Your task to perform on an android device: View the shopping cart on amazon. Add corsair k70 to the cart on amazon, then select checkout. Image 0: 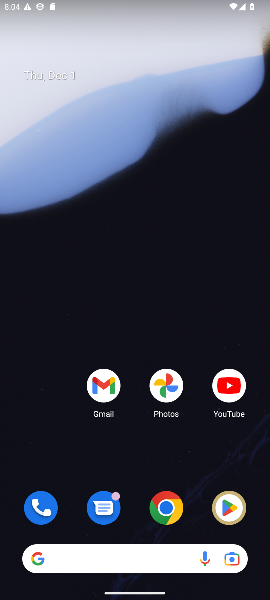
Step 0: click (165, 518)
Your task to perform on an android device: View the shopping cart on amazon. Add corsair k70 to the cart on amazon, then select checkout. Image 1: 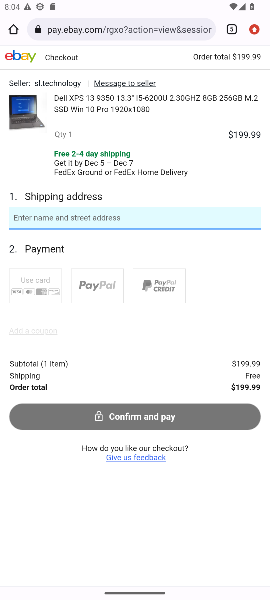
Step 1: click (231, 31)
Your task to perform on an android device: View the shopping cart on amazon. Add corsair k70 to the cart on amazon, then select checkout. Image 2: 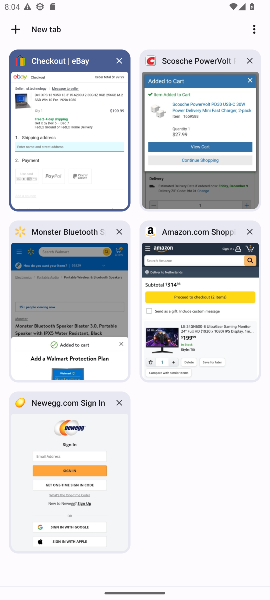
Step 2: click (210, 267)
Your task to perform on an android device: View the shopping cart on amazon. Add corsair k70 to the cart on amazon, then select checkout. Image 3: 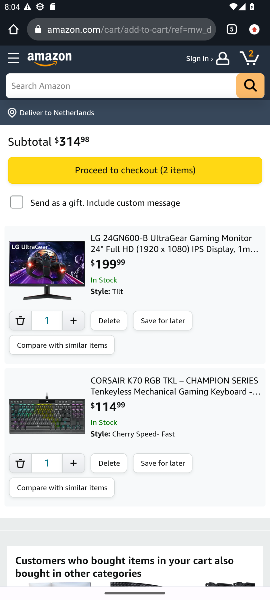
Step 3: click (247, 63)
Your task to perform on an android device: View the shopping cart on amazon. Add corsair k70 to the cart on amazon, then select checkout. Image 4: 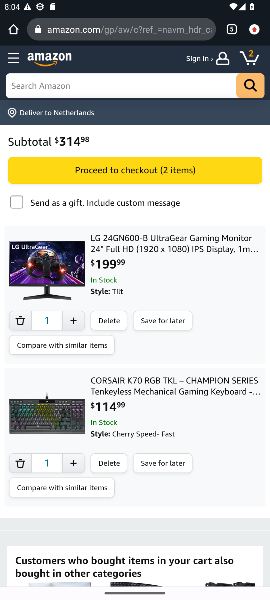
Step 4: click (82, 88)
Your task to perform on an android device: View the shopping cart on amazon. Add corsair k70 to the cart on amazon, then select checkout. Image 5: 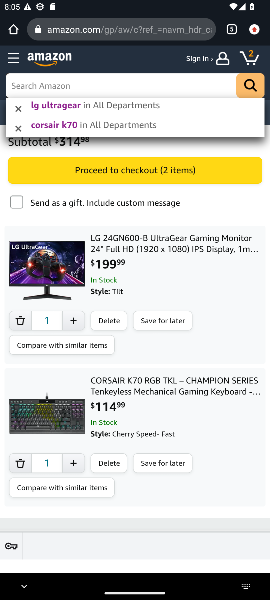
Step 5: click (50, 125)
Your task to perform on an android device: View the shopping cart on amazon. Add corsair k70 to the cart on amazon, then select checkout. Image 6: 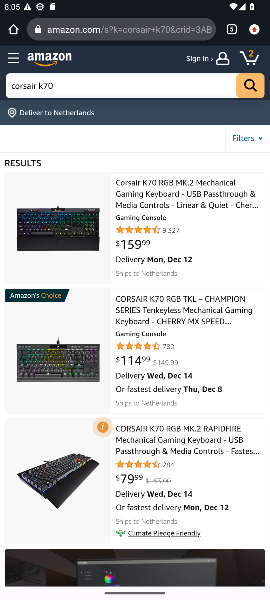
Step 6: click (62, 219)
Your task to perform on an android device: View the shopping cart on amazon. Add corsair k70 to the cart on amazon, then select checkout. Image 7: 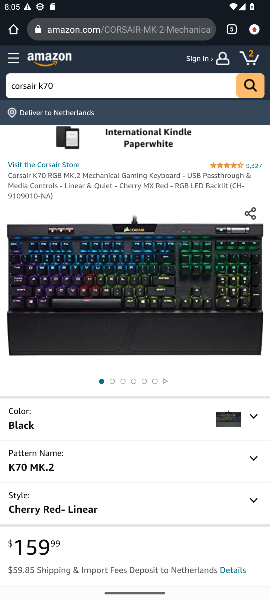
Step 7: drag from (154, 549) to (148, 279)
Your task to perform on an android device: View the shopping cart on amazon. Add corsair k70 to the cart on amazon, then select checkout. Image 8: 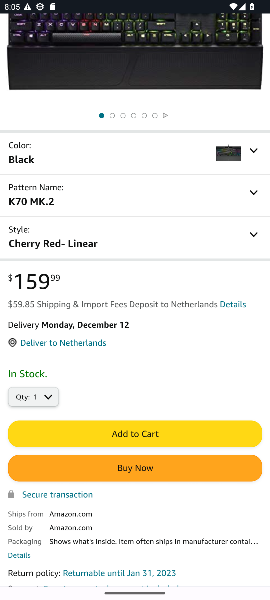
Step 8: click (125, 431)
Your task to perform on an android device: View the shopping cart on amazon. Add corsair k70 to the cart on amazon, then select checkout. Image 9: 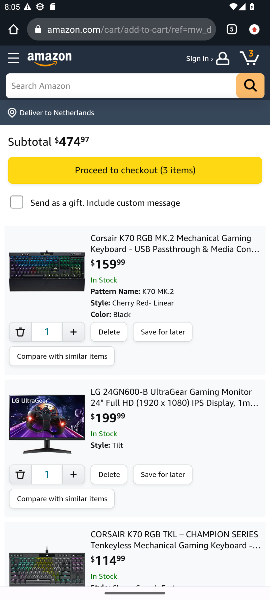
Step 9: click (137, 174)
Your task to perform on an android device: View the shopping cart on amazon. Add corsair k70 to the cart on amazon, then select checkout. Image 10: 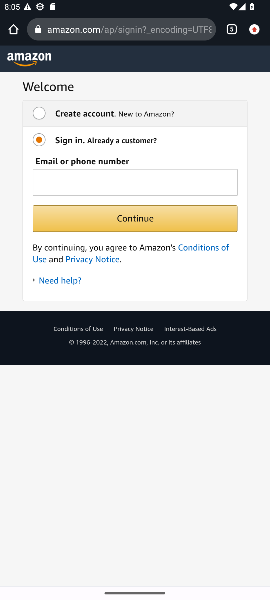
Step 10: task complete